Your task to perform on an android device: Open Google Chrome and click the shortcut for Amazon.com Image 0: 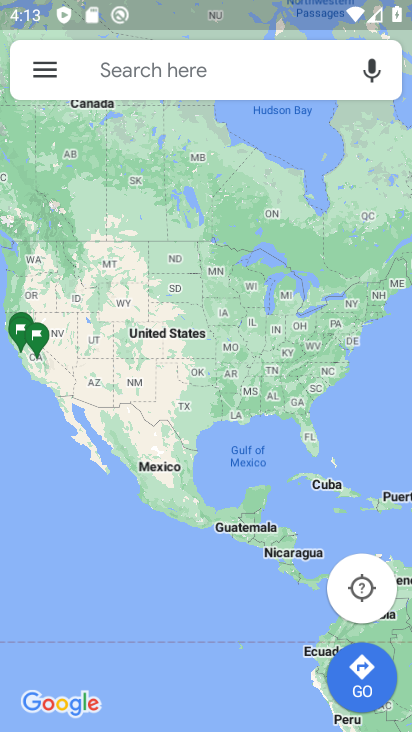
Step 0: press back button
Your task to perform on an android device: Open Google Chrome and click the shortcut for Amazon.com Image 1: 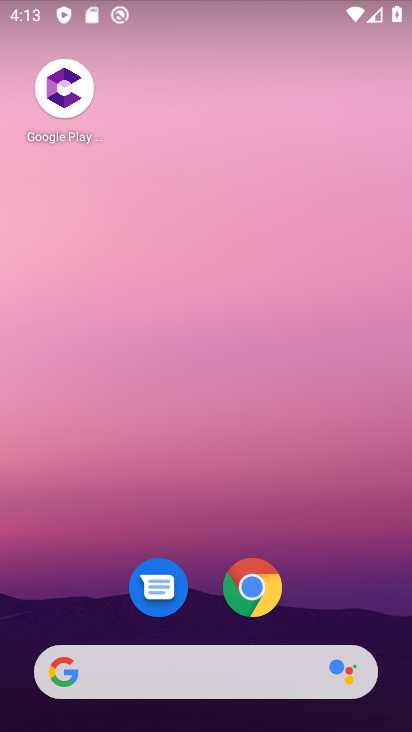
Step 1: click (256, 568)
Your task to perform on an android device: Open Google Chrome and click the shortcut for Amazon.com Image 2: 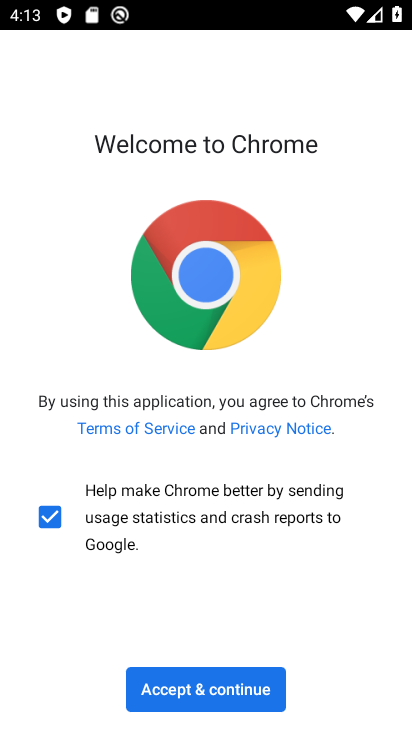
Step 2: click (213, 690)
Your task to perform on an android device: Open Google Chrome and click the shortcut for Amazon.com Image 3: 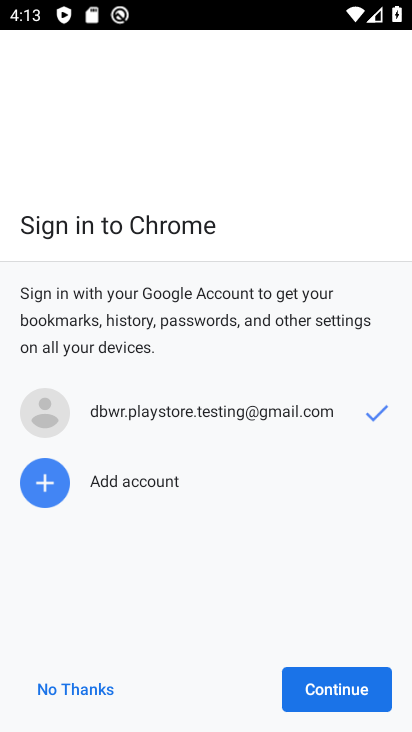
Step 3: click (315, 681)
Your task to perform on an android device: Open Google Chrome and click the shortcut for Amazon.com Image 4: 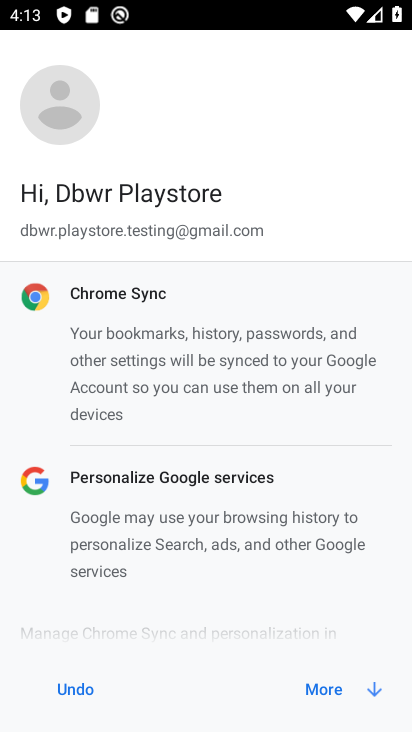
Step 4: click (344, 689)
Your task to perform on an android device: Open Google Chrome and click the shortcut for Amazon.com Image 5: 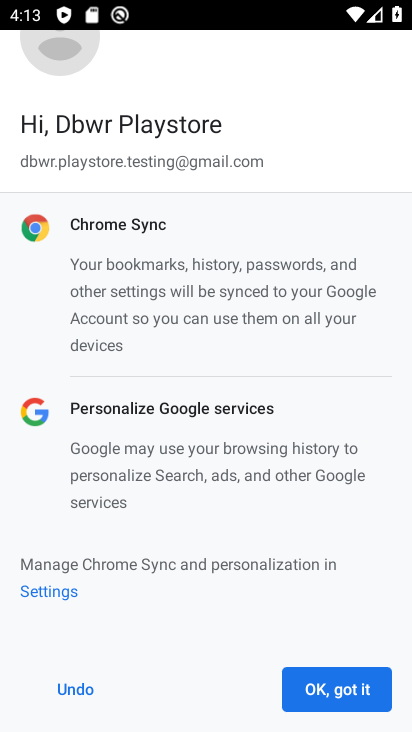
Step 5: click (344, 689)
Your task to perform on an android device: Open Google Chrome and click the shortcut for Amazon.com Image 6: 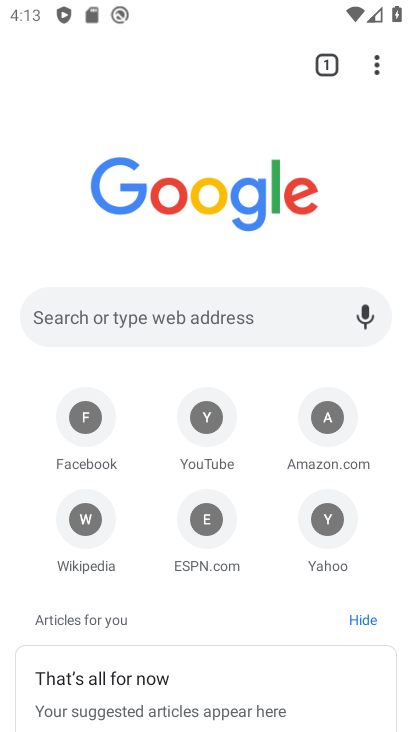
Step 6: click (238, 286)
Your task to perform on an android device: Open Google Chrome and click the shortcut for Amazon.com Image 7: 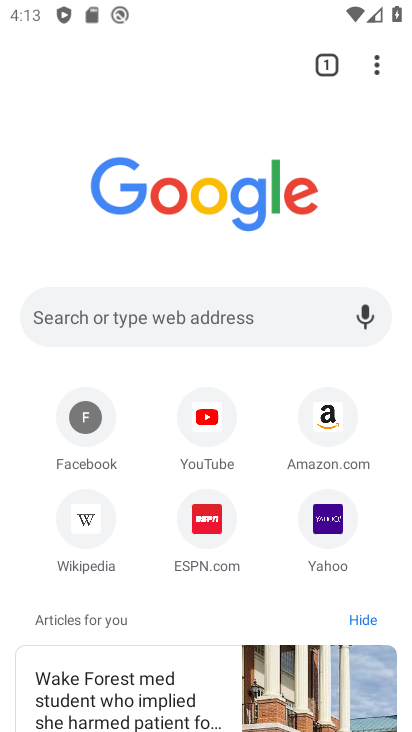
Step 7: click (283, 322)
Your task to perform on an android device: Open Google Chrome and click the shortcut for Amazon.com Image 8: 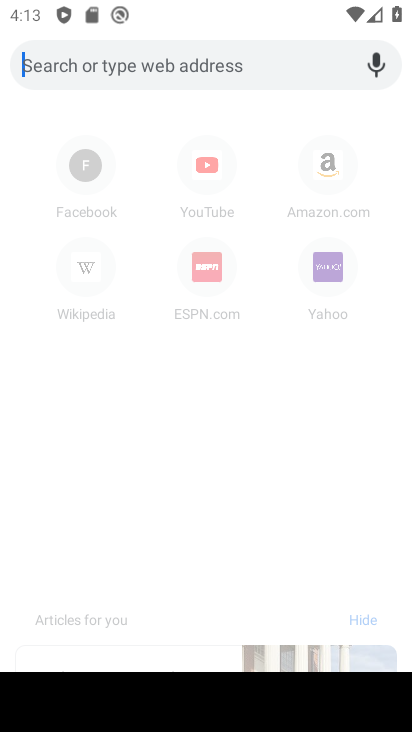
Step 8: type "Amazon.com"
Your task to perform on an android device: Open Google Chrome and click the shortcut for Amazon.com Image 9: 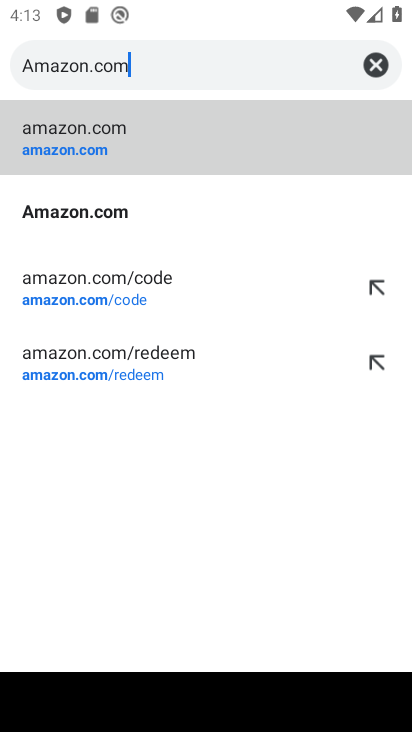
Step 9: click (109, 143)
Your task to perform on an android device: Open Google Chrome and click the shortcut for Amazon.com Image 10: 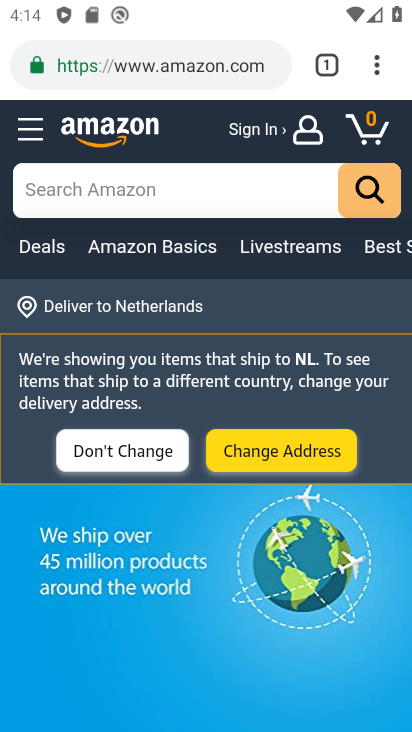
Step 10: drag from (381, 63) to (224, 657)
Your task to perform on an android device: Open Google Chrome and click the shortcut for Amazon.com Image 11: 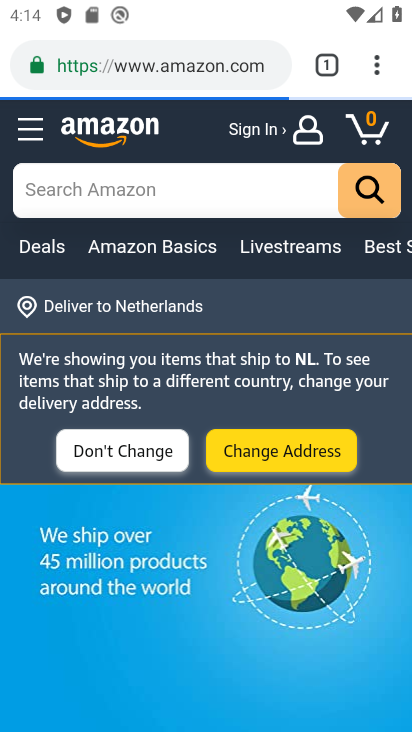
Step 11: drag from (375, 75) to (215, 646)
Your task to perform on an android device: Open Google Chrome and click the shortcut for Amazon.com Image 12: 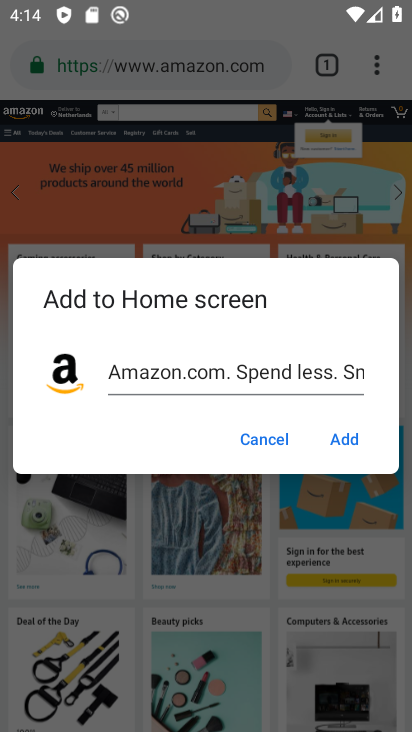
Step 12: click (344, 439)
Your task to perform on an android device: Open Google Chrome and click the shortcut for Amazon.com Image 13: 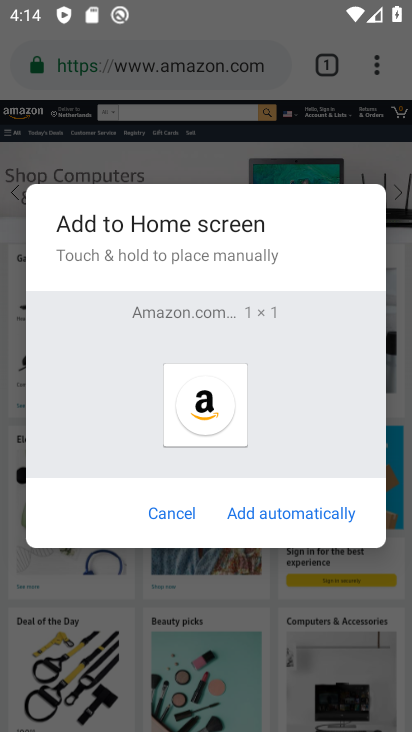
Step 13: click (311, 524)
Your task to perform on an android device: Open Google Chrome and click the shortcut for Amazon.com Image 14: 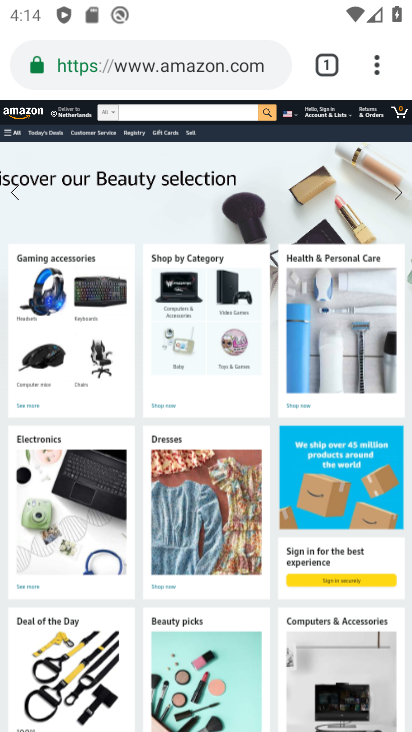
Step 14: task complete